Your task to perform on an android device: set an alarm Image 0: 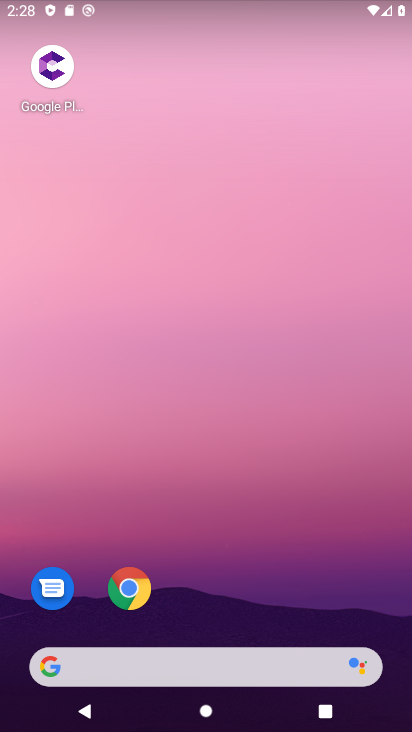
Step 0: drag from (325, 577) to (311, 181)
Your task to perform on an android device: set an alarm Image 1: 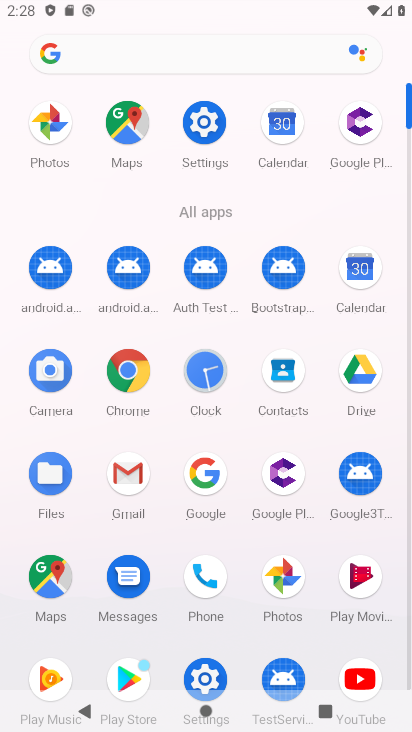
Step 1: click (204, 381)
Your task to perform on an android device: set an alarm Image 2: 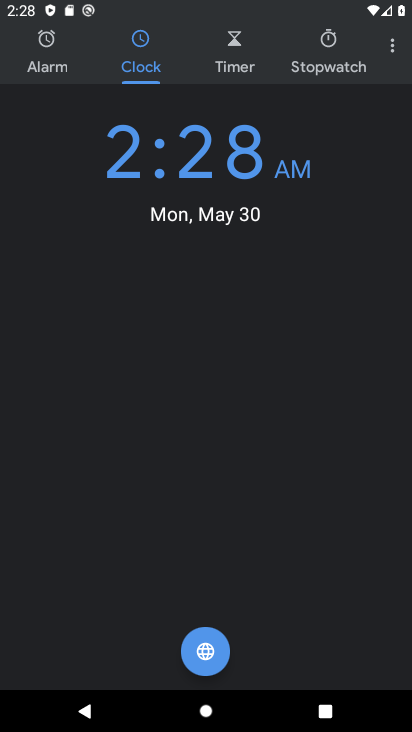
Step 2: click (69, 65)
Your task to perform on an android device: set an alarm Image 3: 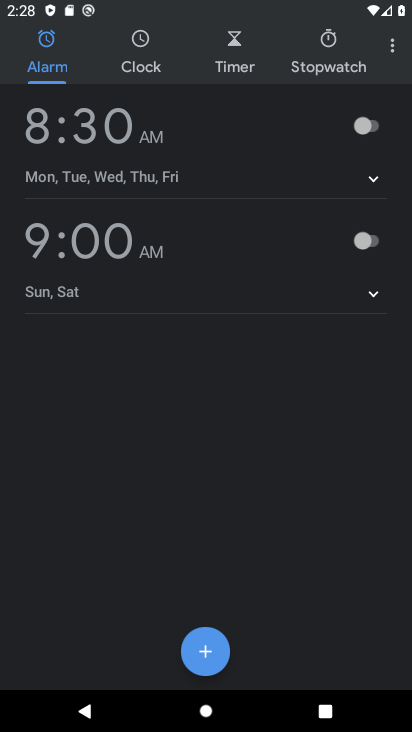
Step 3: click (357, 128)
Your task to perform on an android device: set an alarm Image 4: 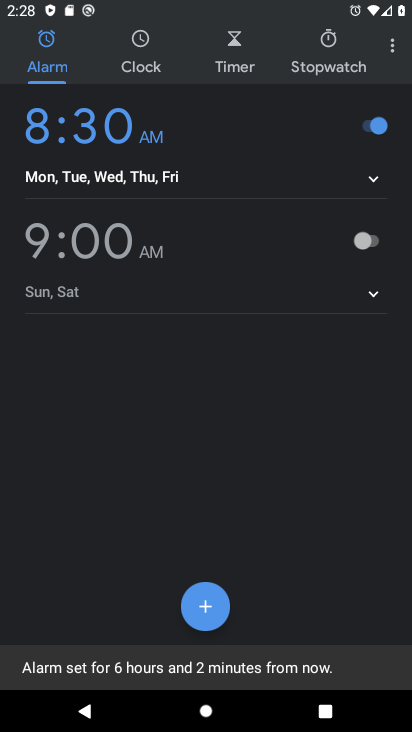
Step 4: task complete